Your task to perform on an android device: Show the shopping cart on target. Add "duracell triple a" to the cart on target, then select checkout. Image 0: 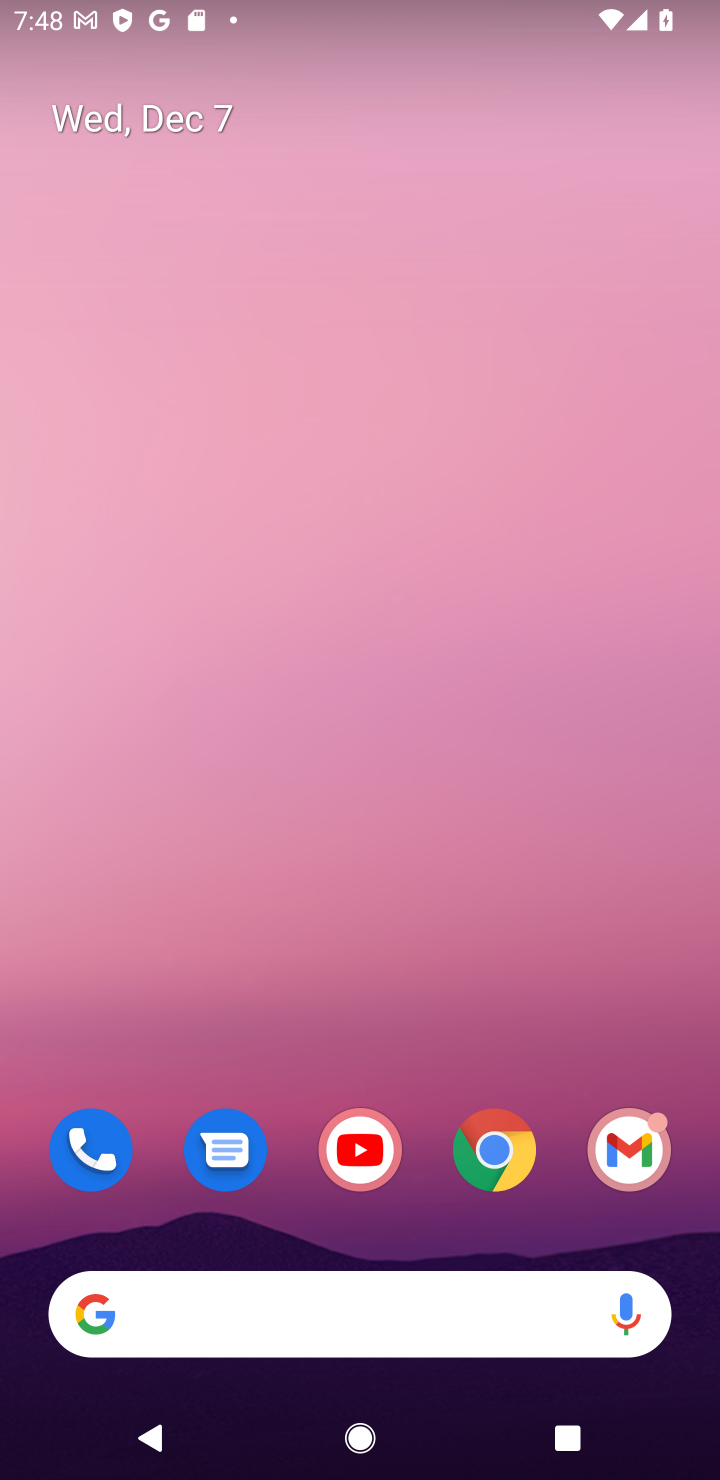
Step 0: click (505, 1169)
Your task to perform on an android device: Show the shopping cart on target. Add "duracell triple a" to the cart on target, then select checkout. Image 1: 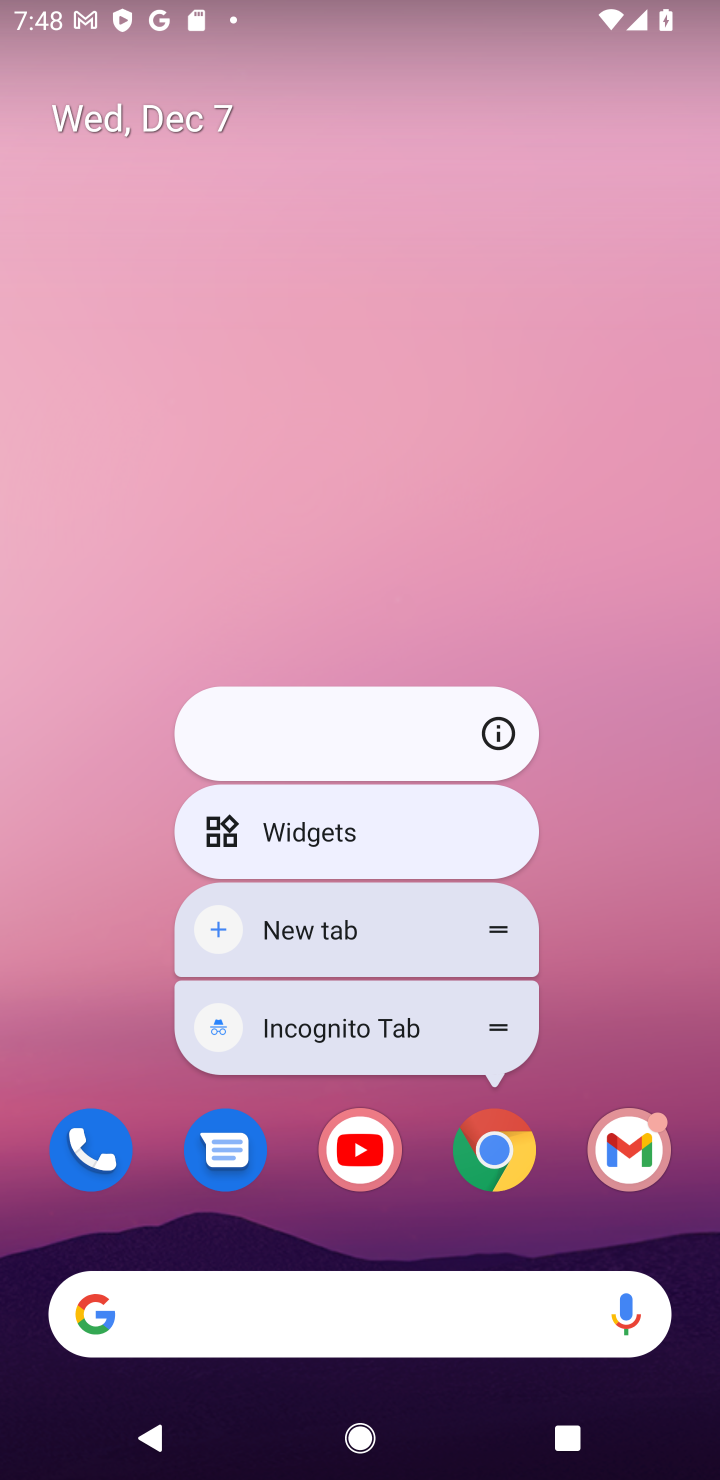
Step 1: click (493, 1167)
Your task to perform on an android device: Show the shopping cart on target. Add "duracell triple a" to the cart on target, then select checkout. Image 2: 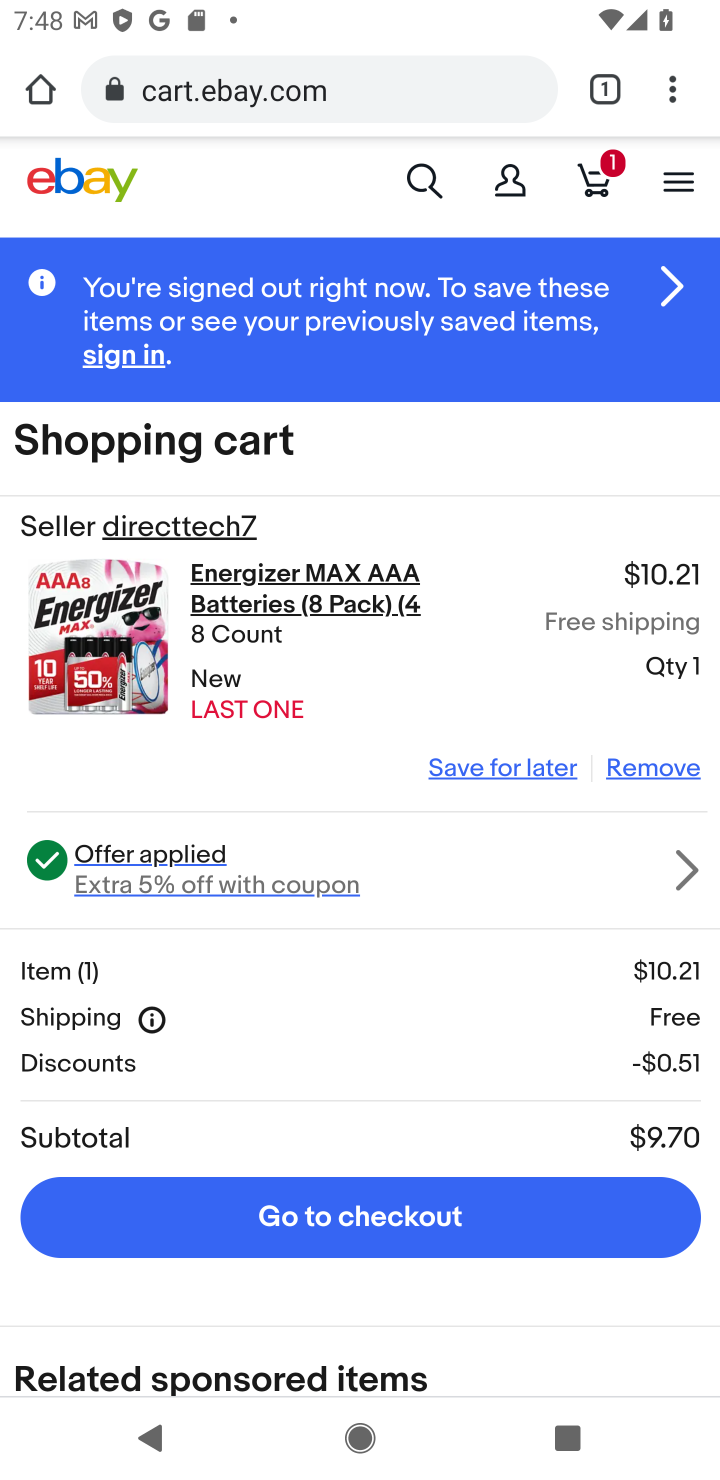
Step 2: click (332, 88)
Your task to perform on an android device: Show the shopping cart on target. Add "duracell triple a" to the cart on target, then select checkout. Image 3: 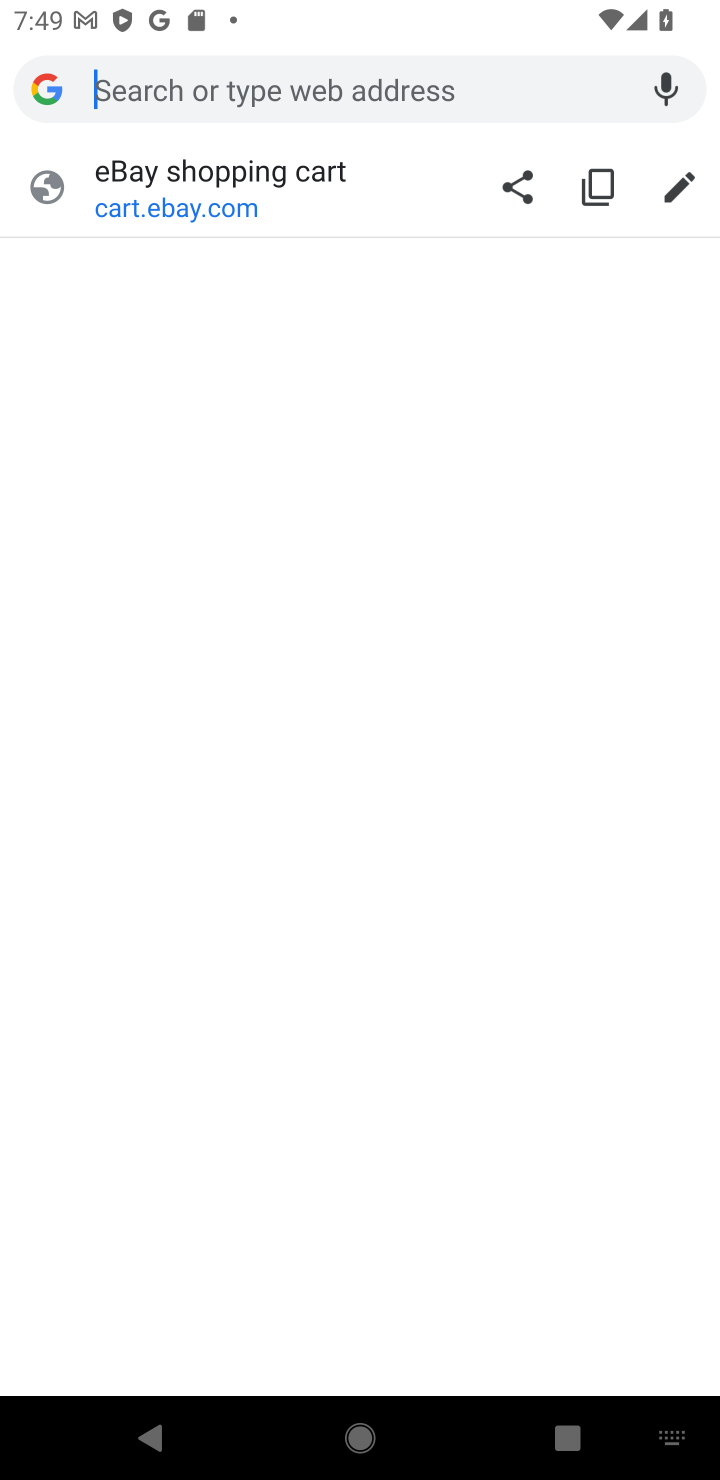
Step 3: type "target"
Your task to perform on an android device: Show the shopping cart on target. Add "duracell triple a" to the cart on target, then select checkout. Image 4: 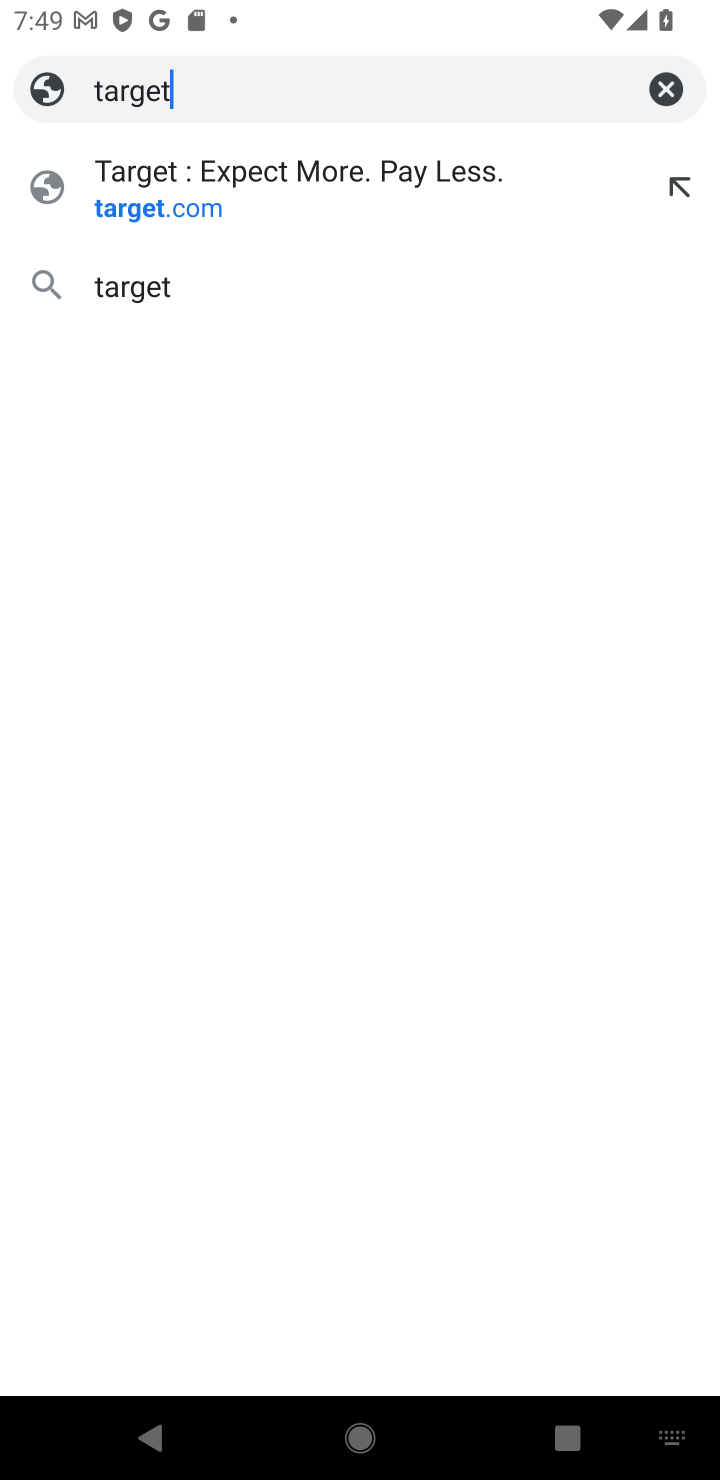
Step 4: click (301, 195)
Your task to perform on an android device: Show the shopping cart on target. Add "duracell triple a" to the cart on target, then select checkout. Image 5: 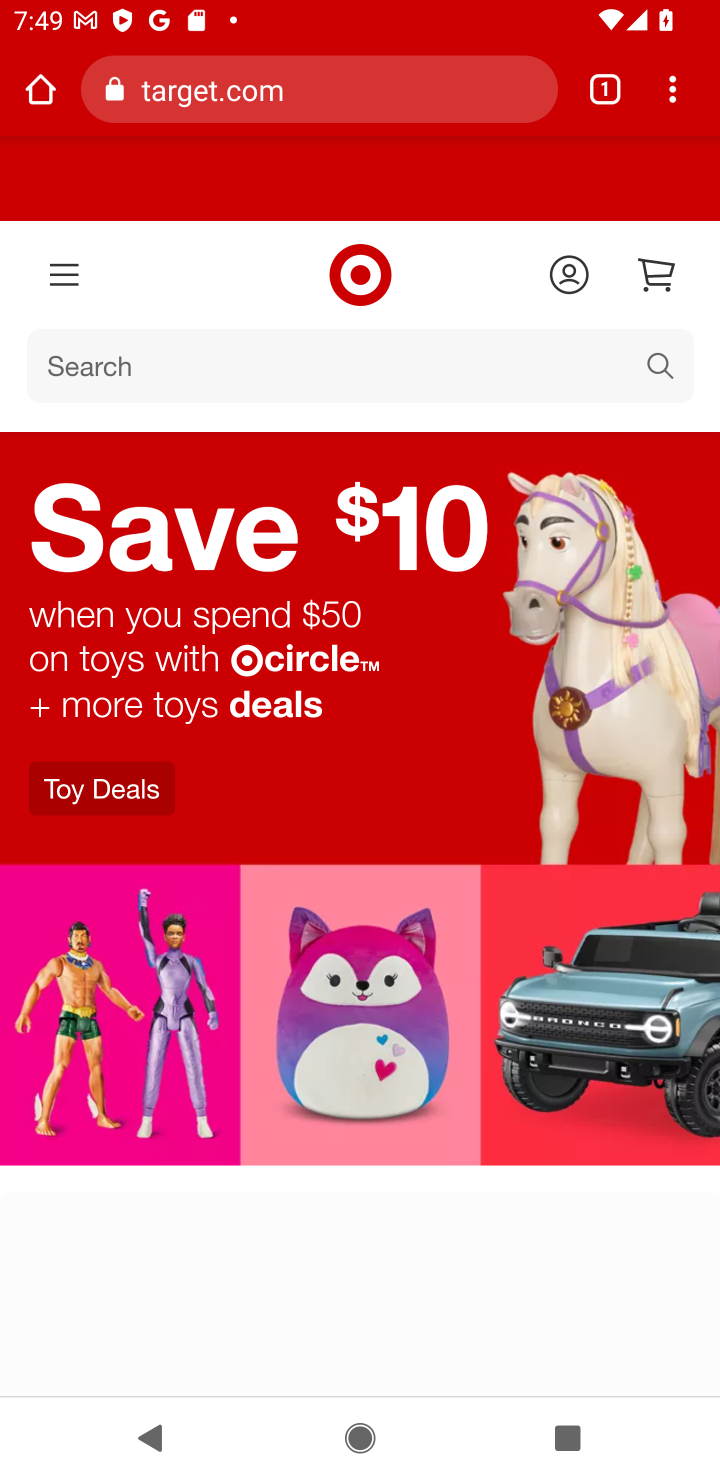
Step 5: click (314, 397)
Your task to perform on an android device: Show the shopping cart on target. Add "duracell triple a" to the cart on target, then select checkout. Image 6: 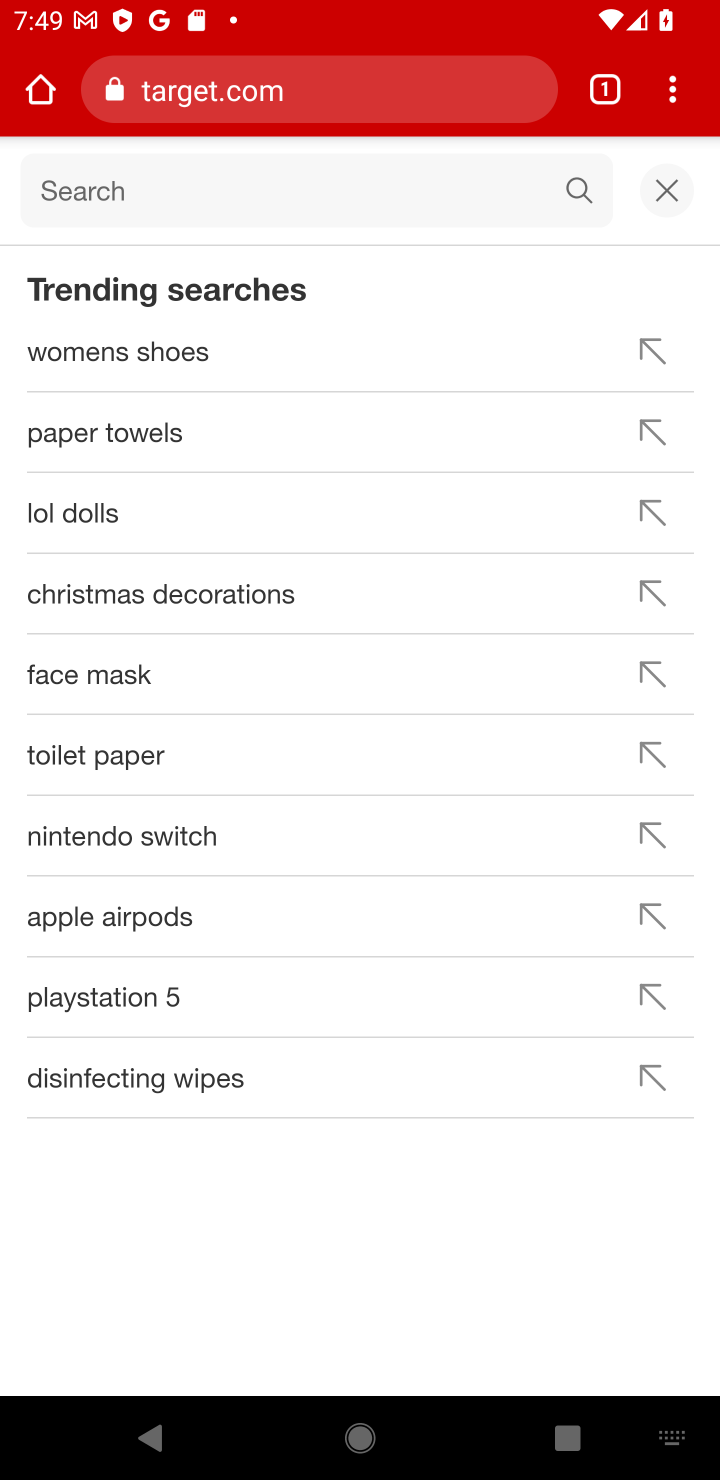
Step 6: type "duracell triple a"
Your task to perform on an android device: Show the shopping cart on target. Add "duracell triple a" to the cart on target, then select checkout. Image 7: 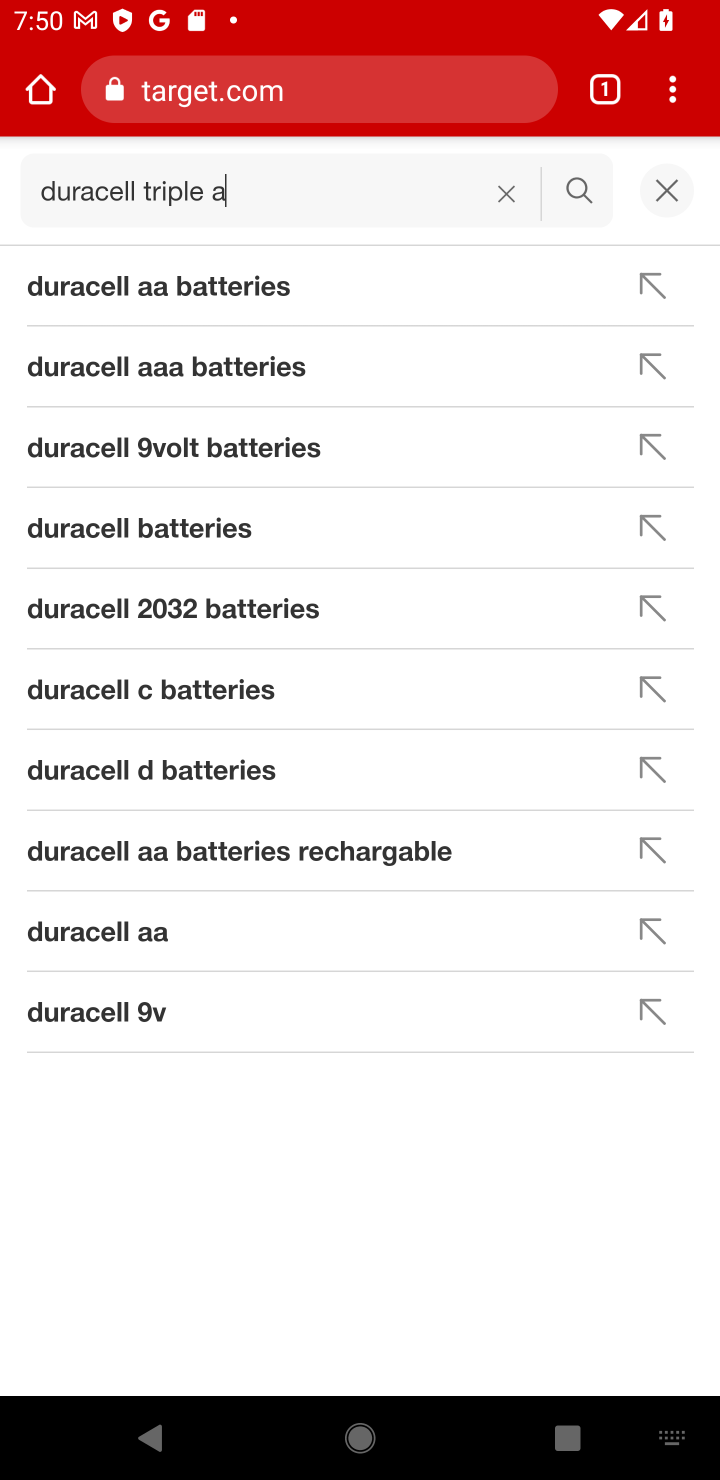
Step 7: press enter
Your task to perform on an android device: Show the shopping cart on target. Add "duracell triple a" to the cart on target, then select checkout. Image 8: 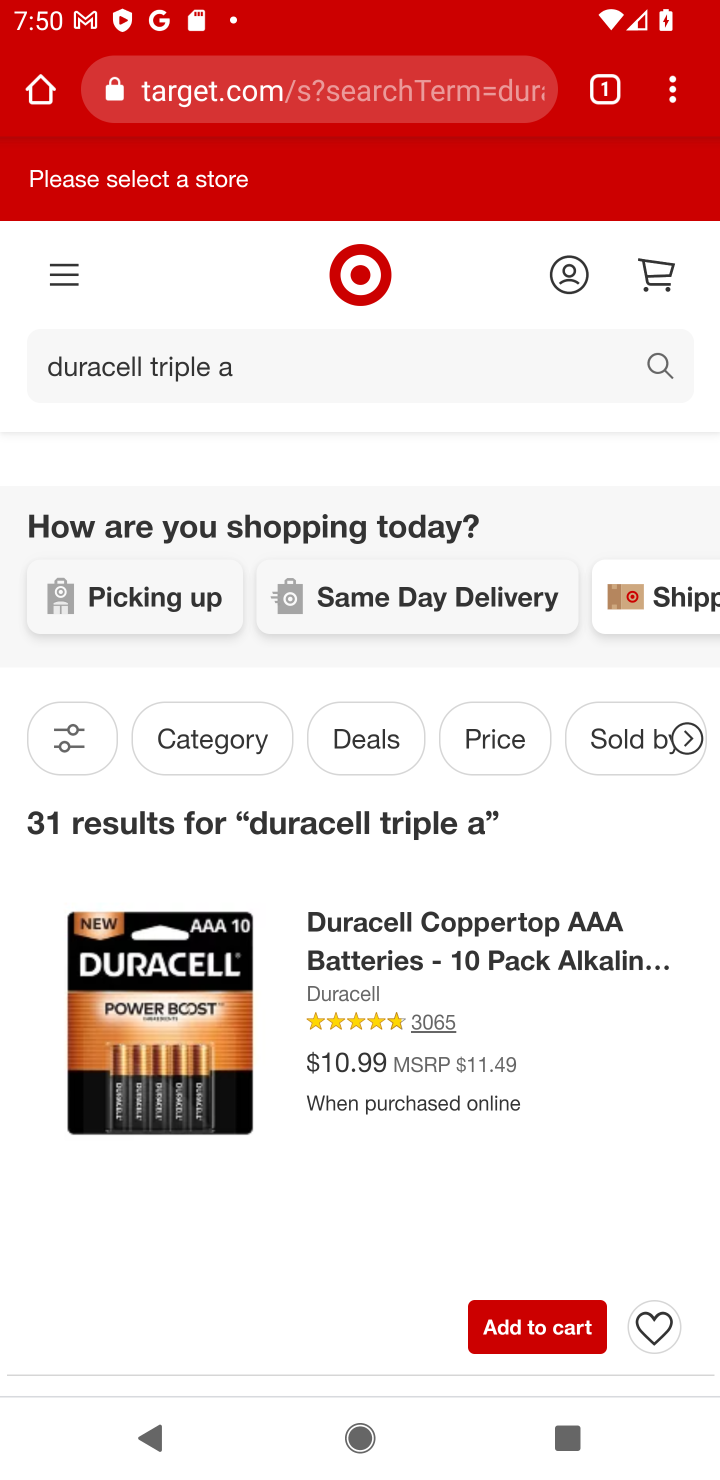
Step 8: click (462, 976)
Your task to perform on an android device: Show the shopping cart on target. Add "duracell triple a" to the cart on target, then select checkout. Image 9: 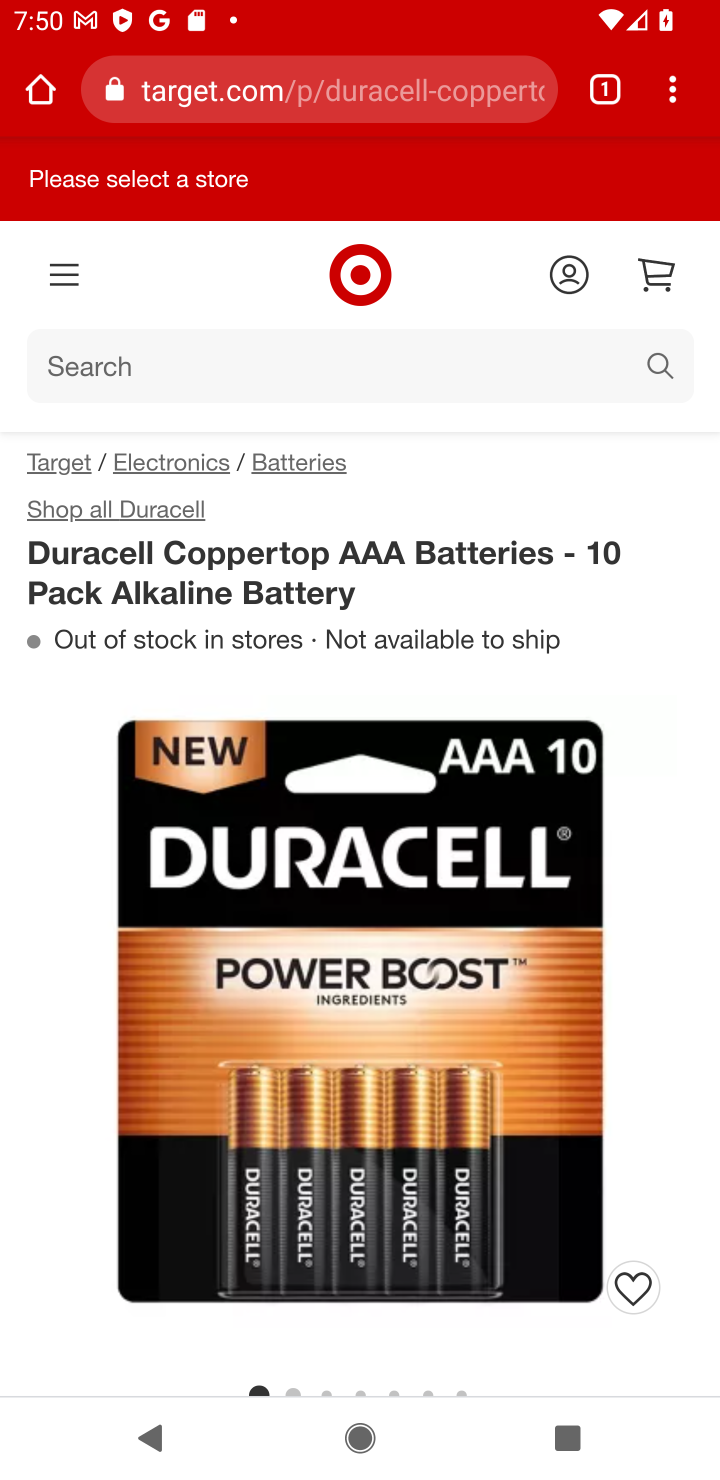
Step 9: drag from (643, 1118) to (702, 664)
Your task to perform on an android device: Show the shopping cart on target. Add "duracell triple a" to the cart on target, then select checkout. Image 10: 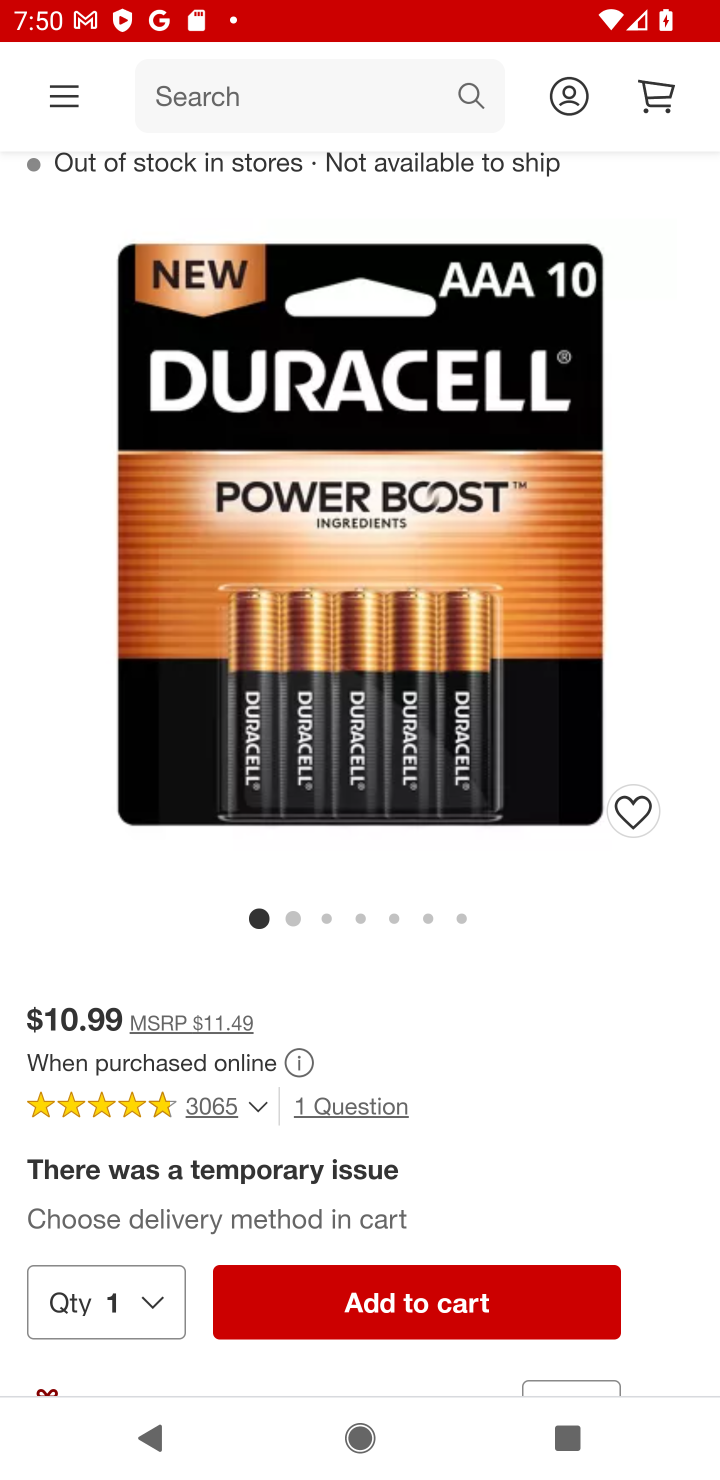
Step 10: click (486, 1295)
Your task to perform on an android device: Show the shopping cart on target. Add "duracell triple a" to the cart on target, then select checkout. Image 11: 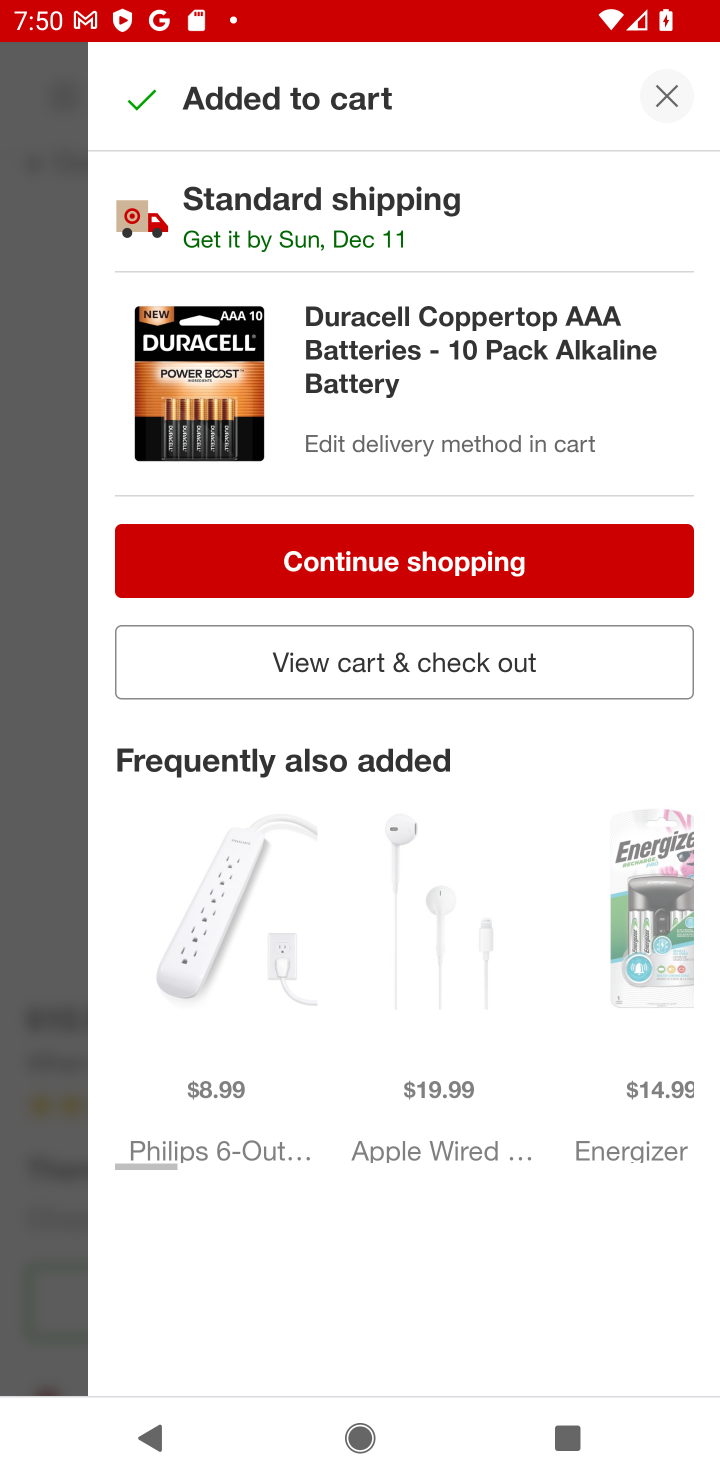
Step 11: click (455, 669)
Your task to perform on an android device: Show the shopping cart on target. Add "duracell triple a" to the cart on target, then select checkout. Image 12: 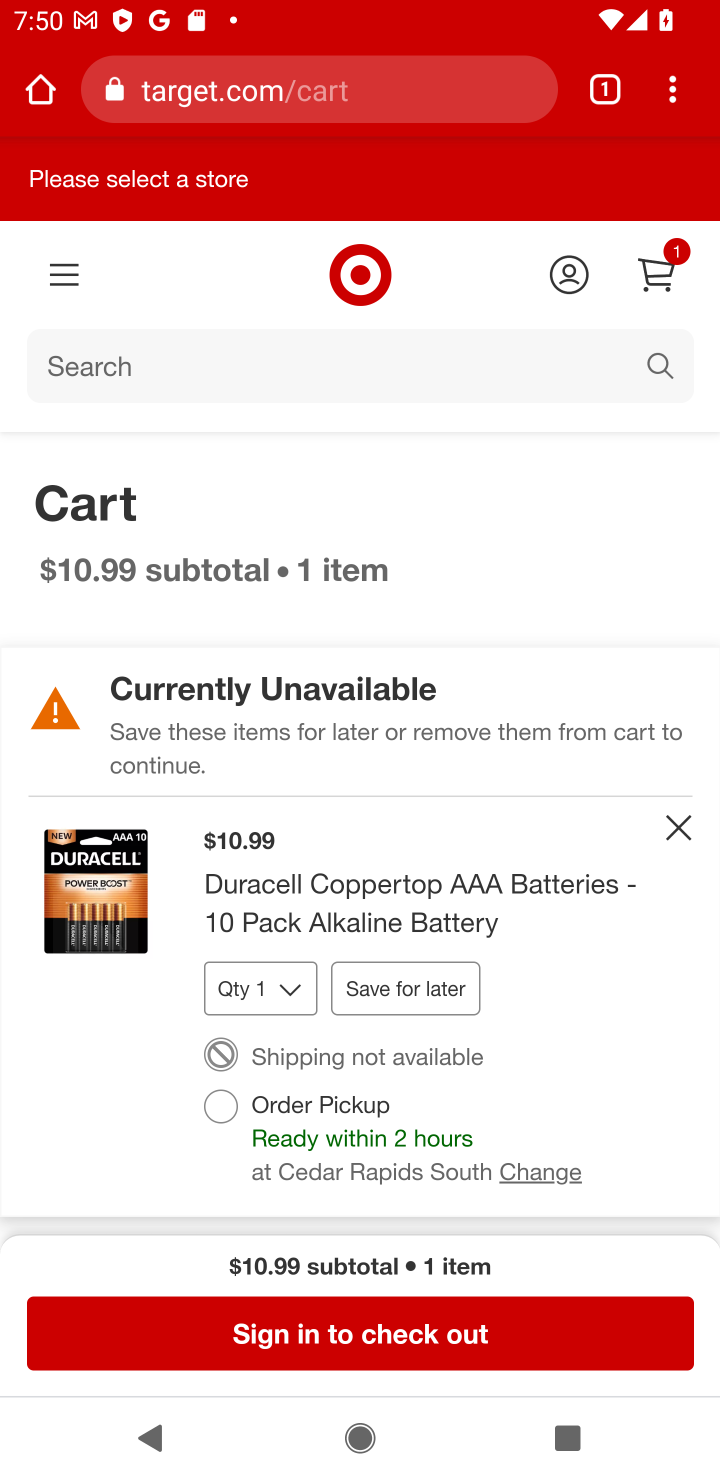
Step 12: click (412, 1352)
Your task to perform on an android device: Show the shopping cart on target. Add "duracell triple a" to the cart on target, then select checkout. Image 13: 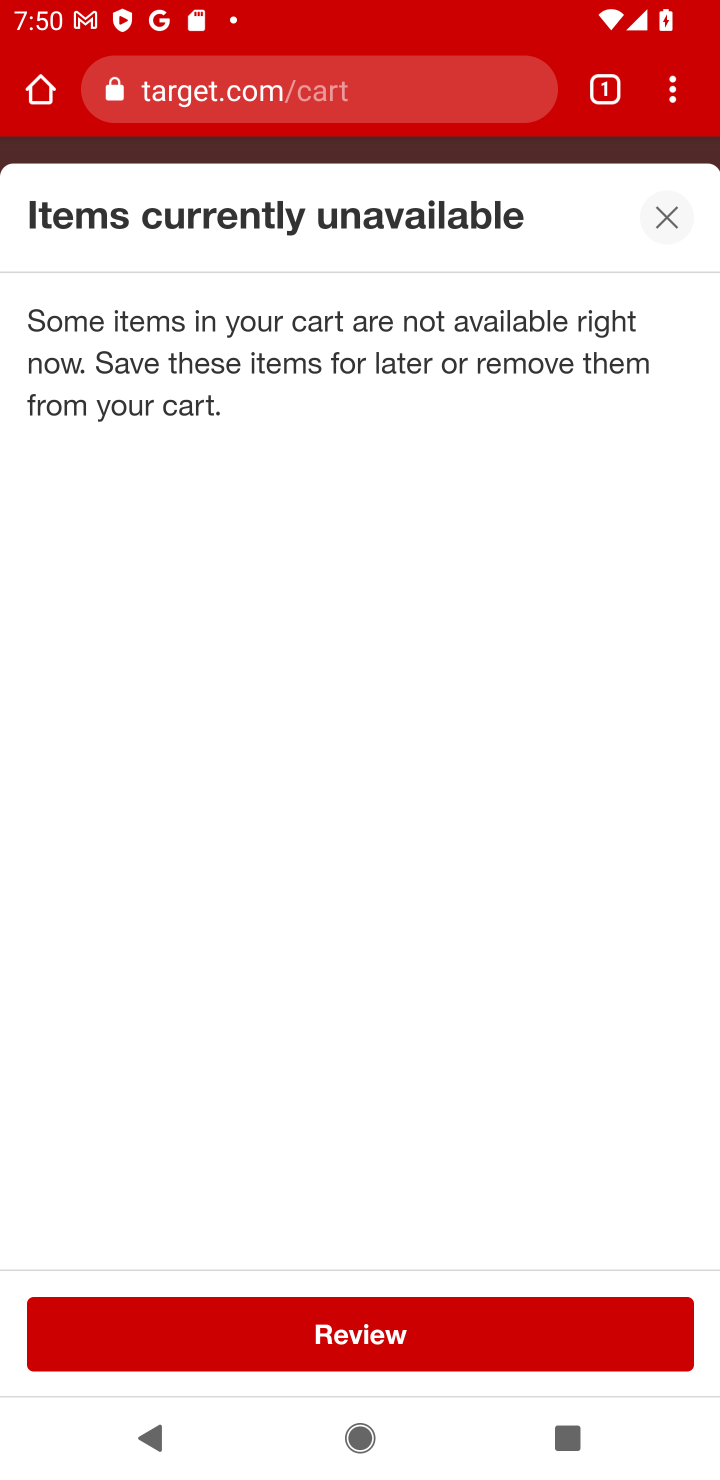
Step 13: click (437, 1333)
Your task to perform on an android device: Show the shopping cart on target. Add "duracell triple a" to the cart on target, then select checkout. Image 14: 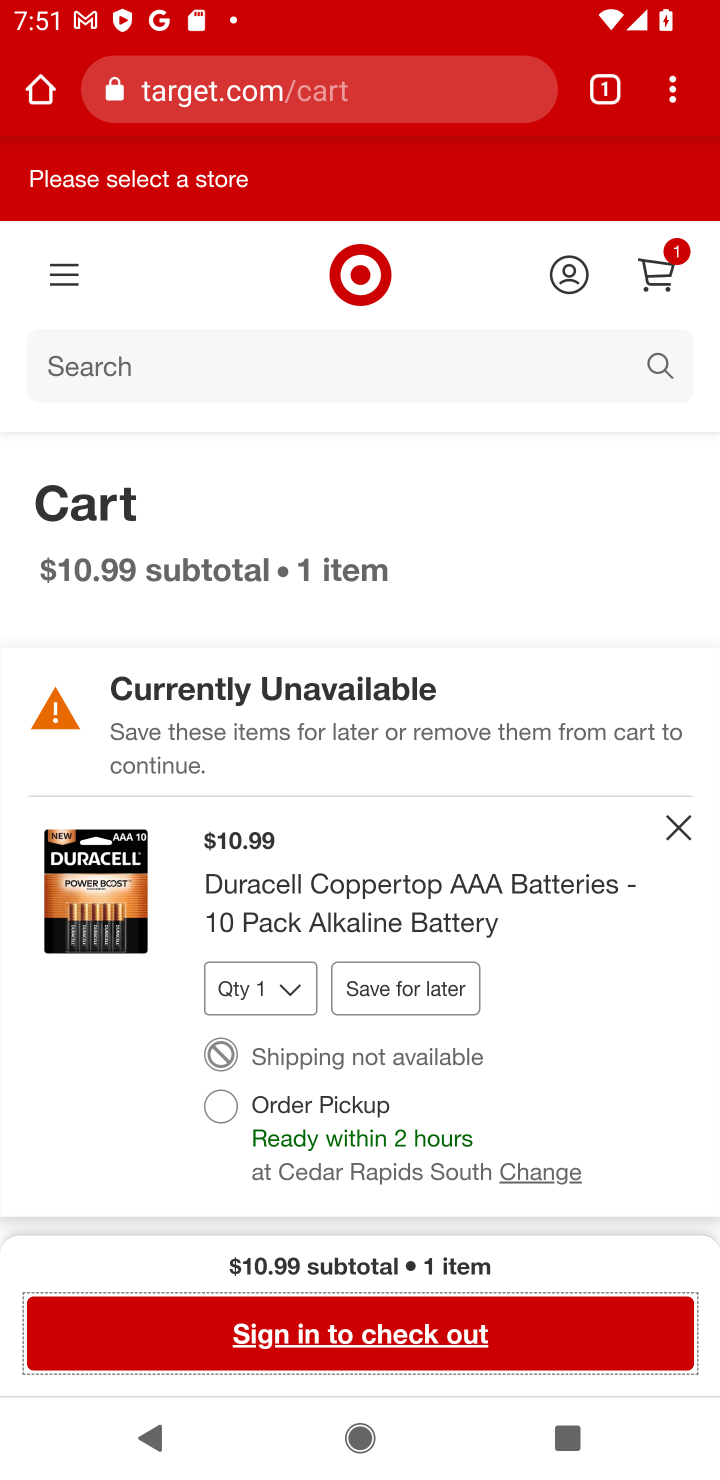
Step 14: click (398, 1334)
Your task to perform on an android device: Show the shopping cart on target. Add "duracell triple a" to the cart on target, then select checkout. Image 15: 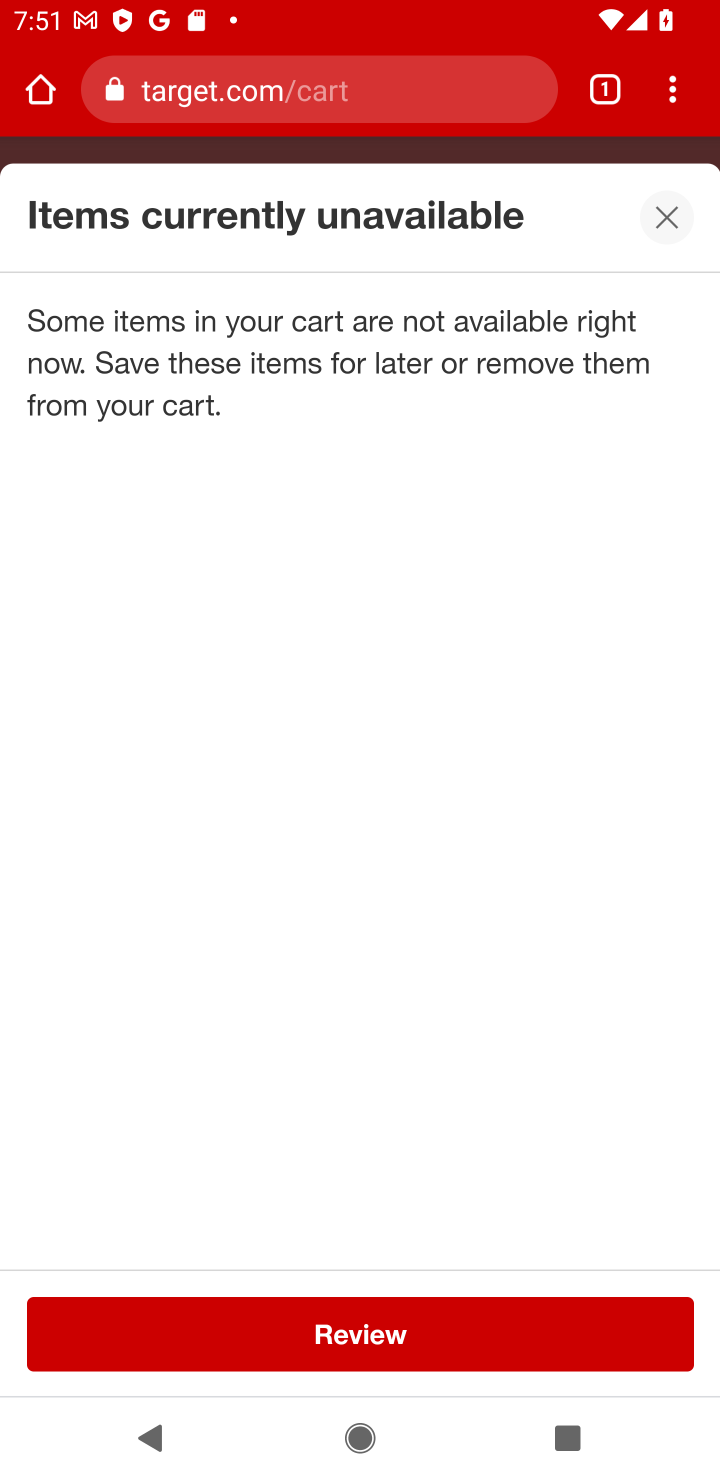
Step 15: task complete